Your task to perform on an android device: Open settings on Google Maps Image 0: 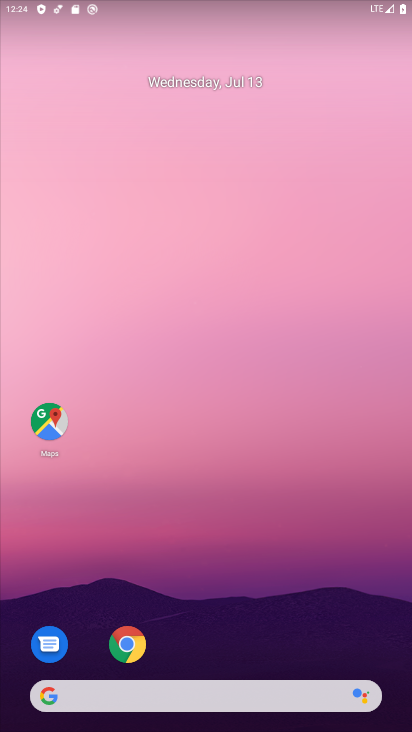
Step 0: click (45, 423)
Your task to perform on an android device: Open settings on Google Maps Image 1: 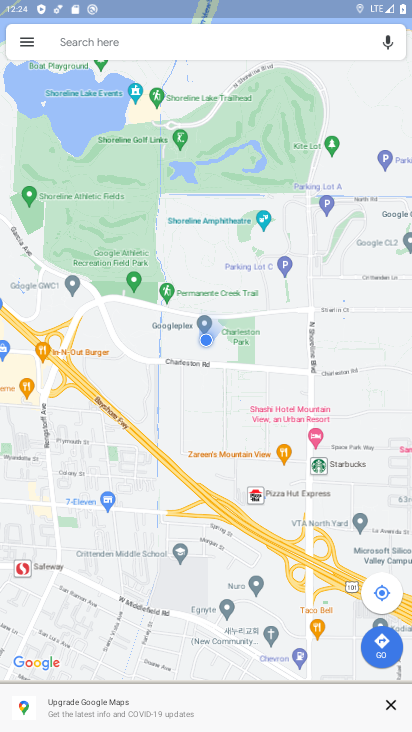
Step 1: click (22, 45)
Your task to perform on an android device: Open settings on Google Maps Image 2: 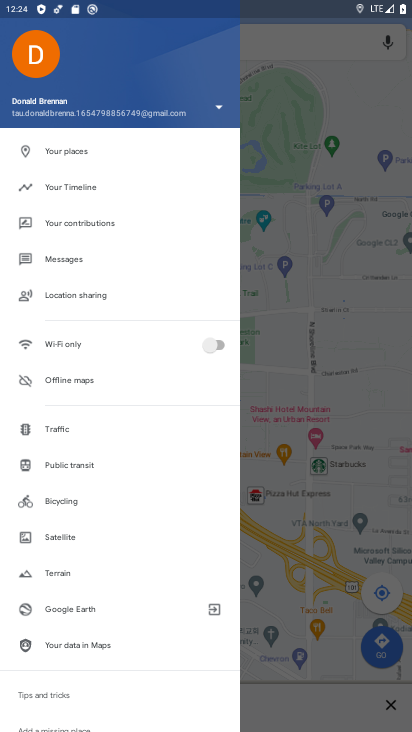
Step 2: click (100, 537)
Your task to perform on an android device: Open settings on Google Maps Image 3: 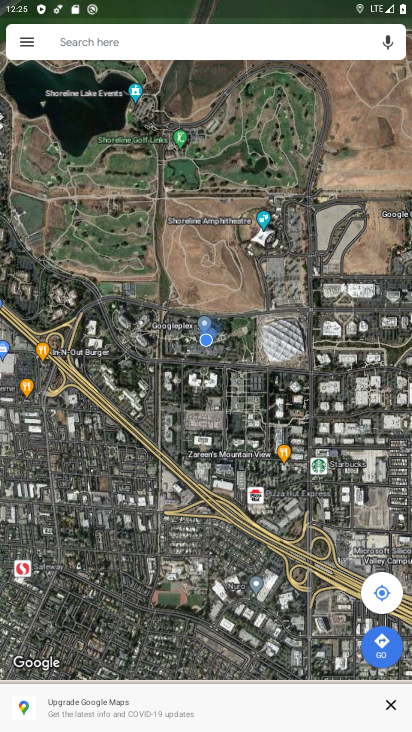
Step 3: click (20, 42)
Your task to perform on an android device: Open settings on Google Maps Image 4: 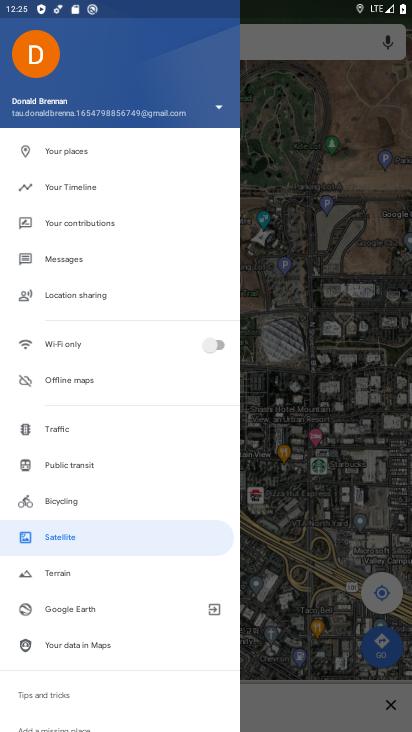
Step 4: drag from (109, 580) to (147, 249)
Your task to perform on an android device: Open settings on Google Maps Image 5: 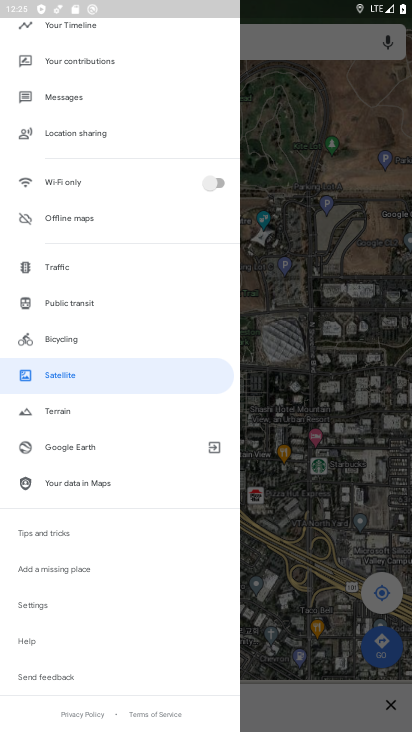
Step 5: click (41, 608)
Your task to perform on an android device: Open settings on Google Maps Image 6: 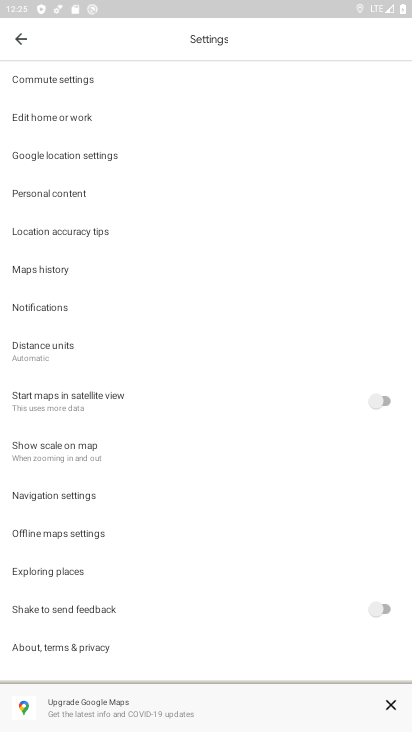
Step 6: task complete